Your task to perform on an android device: Open Yahoo.com Image 0: 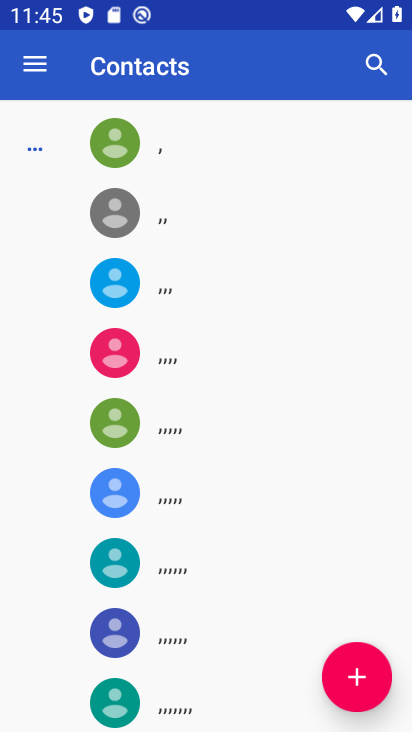
Step 0: press home button
Your task to perform on an android device: Open Yahoo.com Image 1: 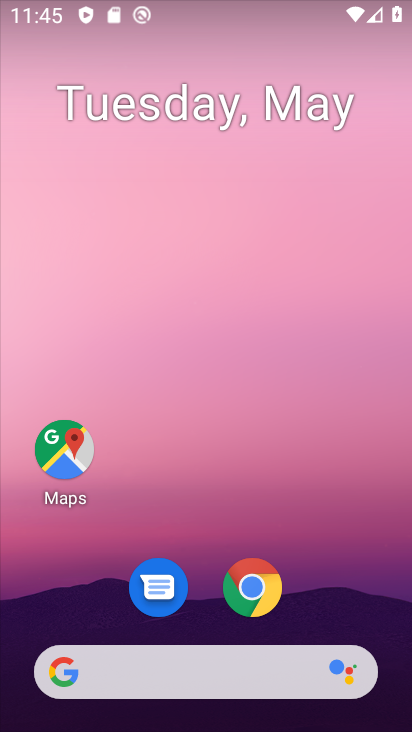
Step 1: click (254, 592)
Your task to perform on an android device: Open Yahoo.com Image 2: 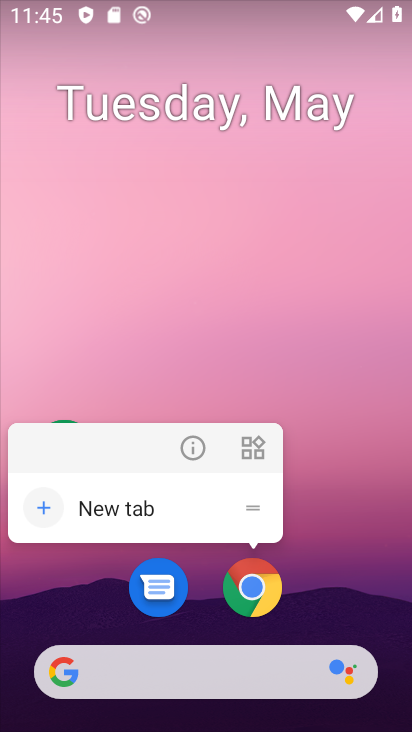
Step 2: click (252, 584)
Your task to perform on an android device: Open Yahoo.com Image 3: 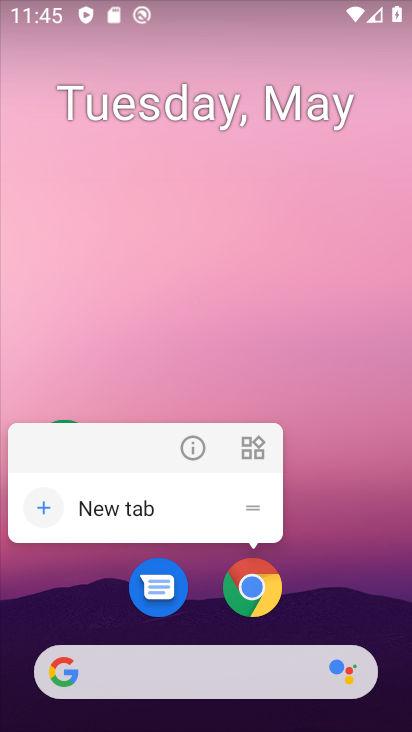
Step 3: click (245, 582)
Your task to perform on an android device: Open Yahoo.com Image 4: 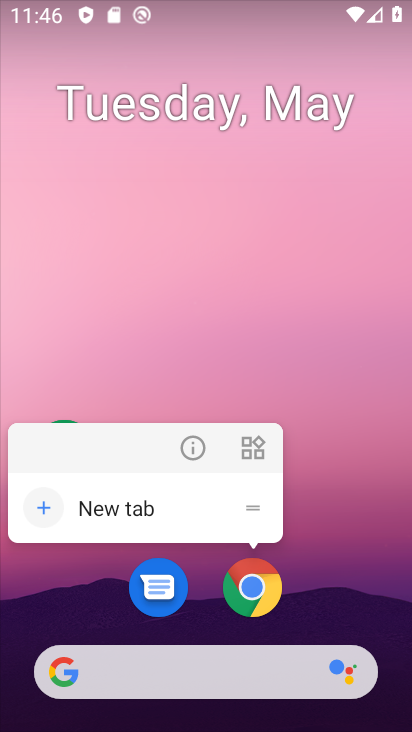
Step 4: click (260, 604)
Your task to perform on an android device: Open Yahoo.com Image 5: 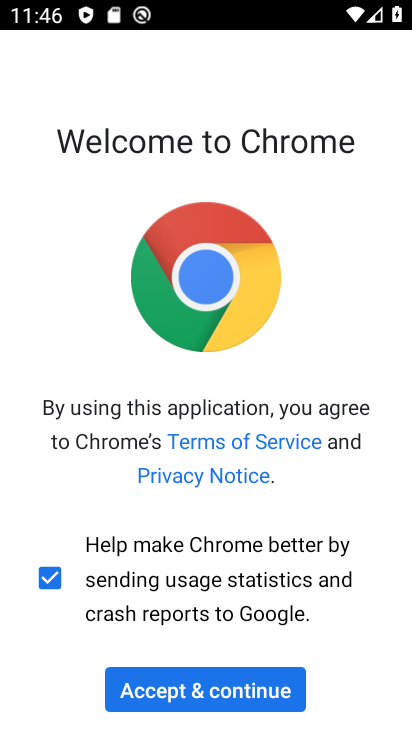
Step 5: click (254, 692)
Your task to perform on an android device: Open Yahoo.com Image 6: 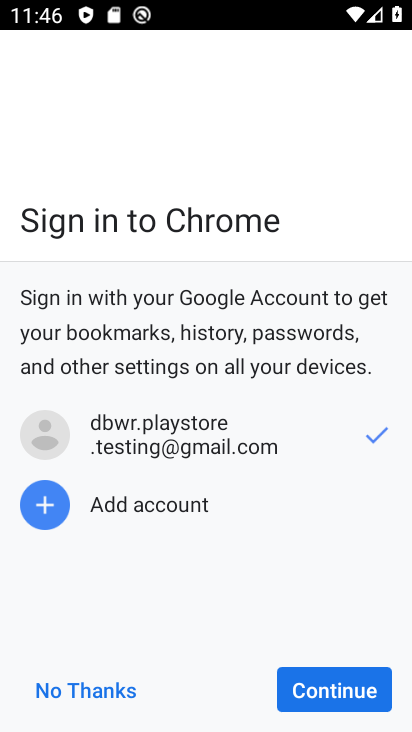
Step 6: click (305, 695)
Your task to perform on an android device: Open Yahoo.com Image 7: 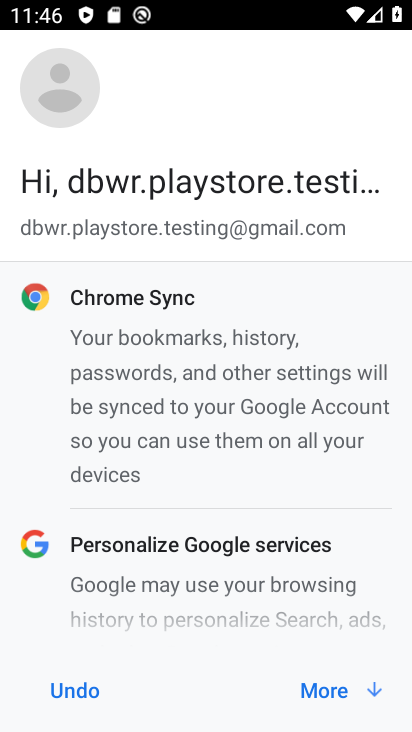
Step 7: click (334, 707)
Your task to perform on an android device: Open Yahoo.com Image 8: 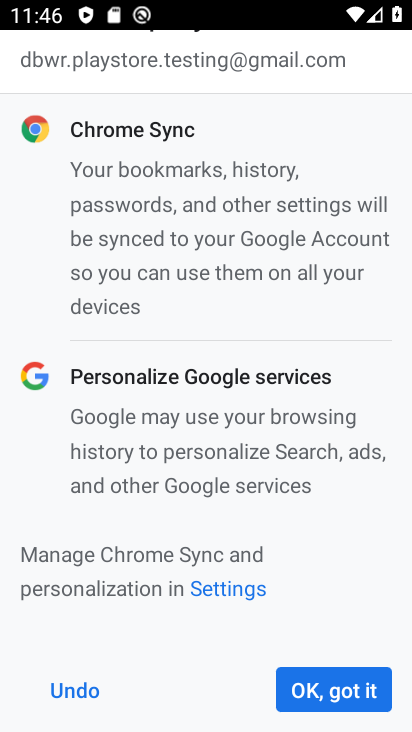
Step 8: click (329, 697)
Your task to perform on an android device: Open Yahoo.com Image 9: 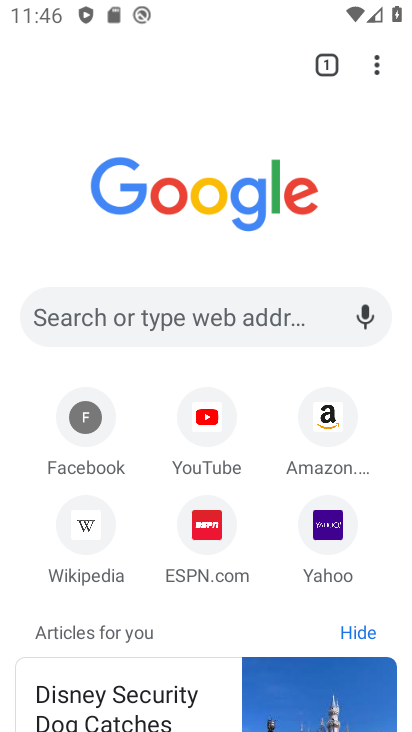
Step 9: click (166, 324)
Your task to perform on an android device: Open Yahoo.com Image 10: 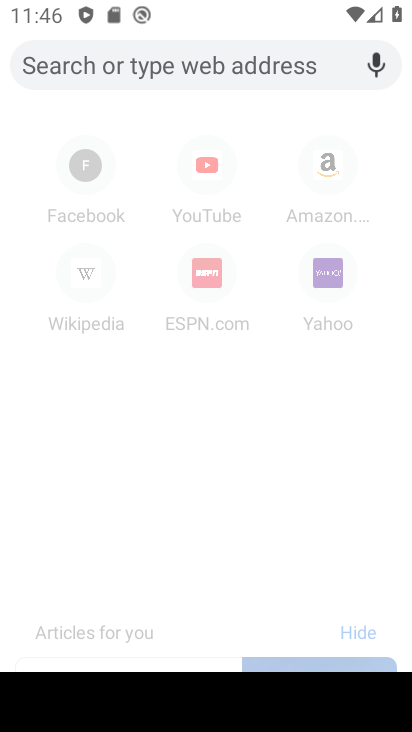
Step 10: type "yahoo.com"
Your task to perform on an android device: Open Yahoo.com Image 11: 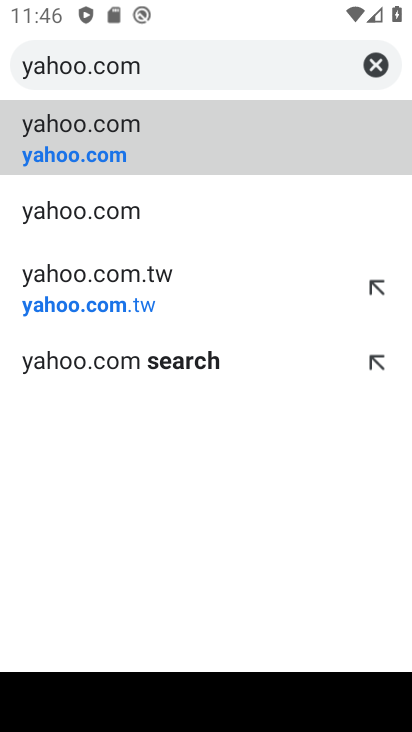
Step 11: click (82, 158)
Your task to perform on an android device: Open Yahoo.com Image 12: 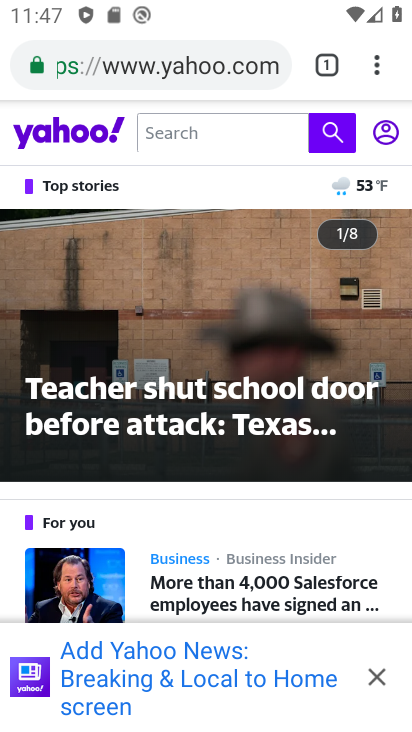
Step 12: task complete